Your task to perform on an android device: Search for macbook pro 15 inch on costco.com, select the first entry, add it to the cart, then select checkout. Image 0: 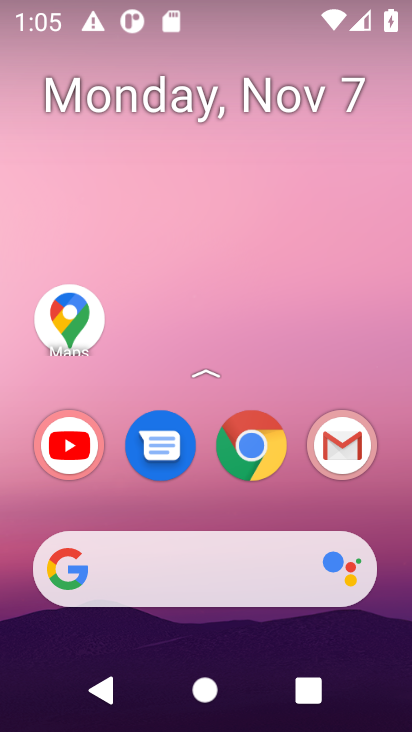
Step 0: click (260, 439)
Your task to perform on an android device: Search for macbook pro 15 inch on costco.com, select the first entry, add it to the cart, then select checkout. Image 1: 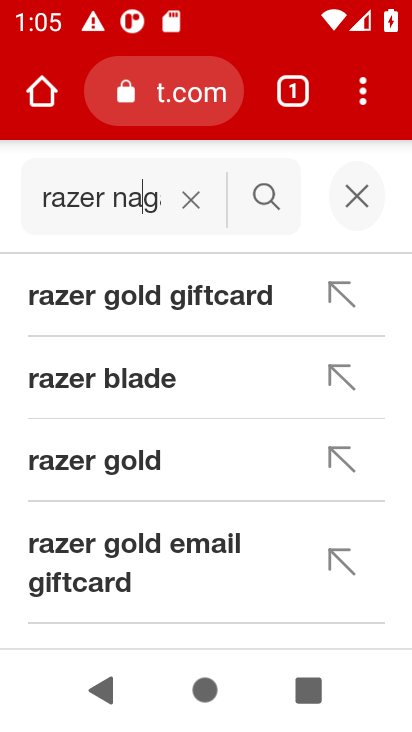
Step 1: click (205, 101)
Your task to perform on an android device: Search for macbook pro 15 inch on costco.com, select the first entry, add it to the cart, then select checkout. Image 2: 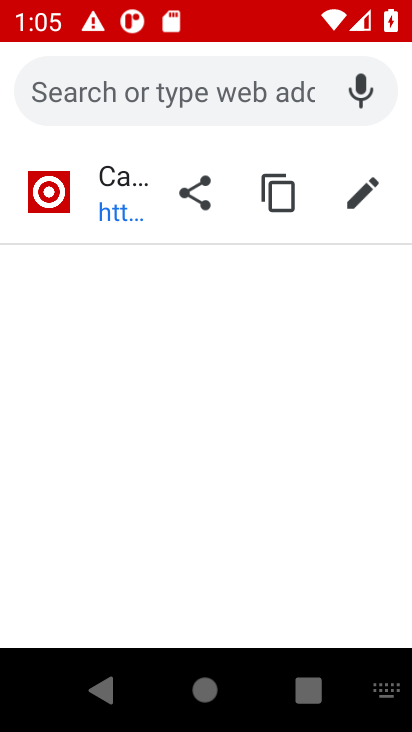
Step 2: type "costco.com"
Your task to perform on an android device: Search for macbook pro 15 inch on costco.com, select the first entry, add it to the cart, then select checkout. Image 3: 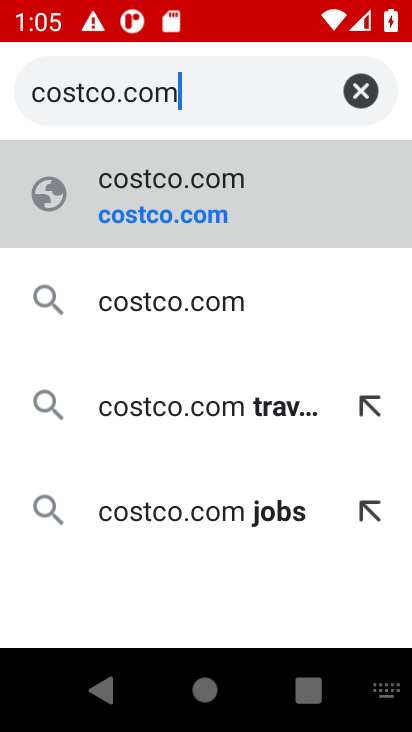
Step 3: click (206, 208)
Your task to perform on an android device: Search for macbook pro 15 inch on costco.com, select the first entry, add it to the cart, then select checkout. Image 4: 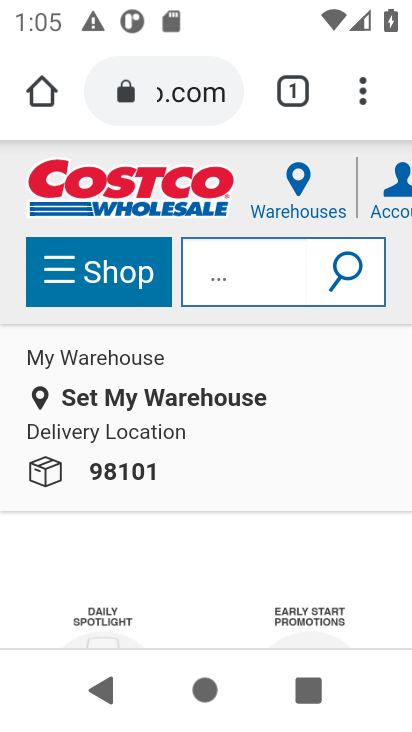
Step 4: click (251, 256)
Your task to perform on an android device: Search for macbook pro 15 inch on costco.com, select the first entry, add it to the cart, then select checkout. Image 5: 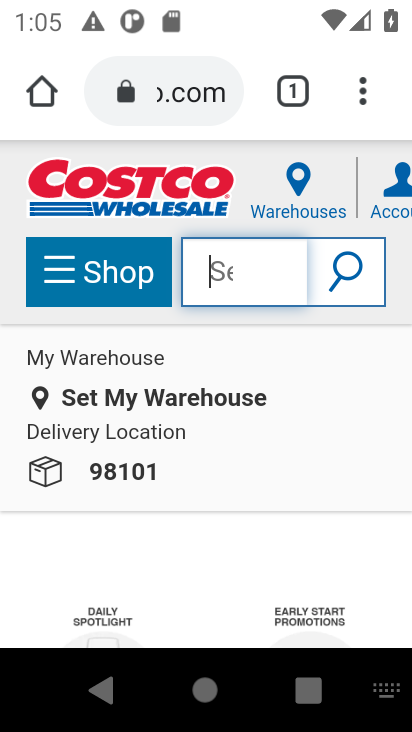
Step 5: type " macbook pro 15 inch"
Your task to perform on an android device: Search for macbook pro 15 inch on costco.com, select the first entry, add it to the cart, then select checkout. Image 6: 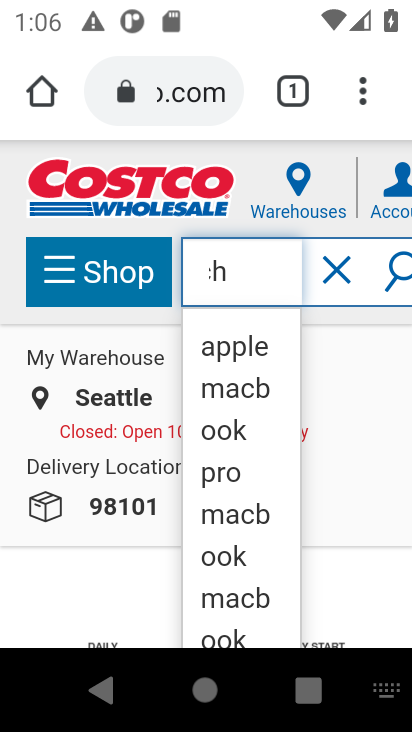
Step 6: click (365, 333)
Your task to perform on an android device: Search for macbook pro 15 inch on costco.com, select the first entry, add it to the cart, then select checkout. Image 7: 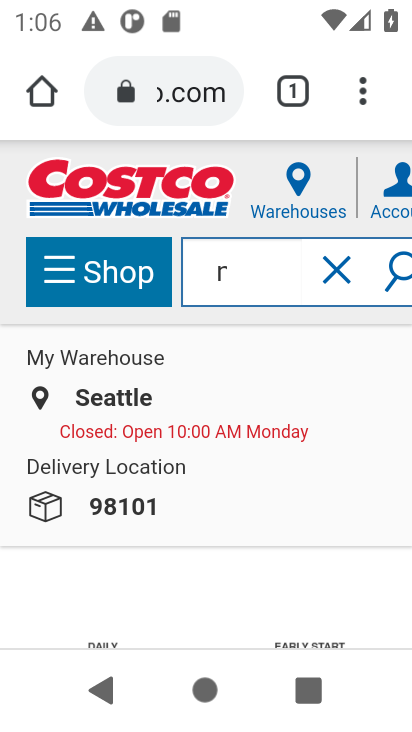
Step 7: click (330, 271)
Your task to perform on an android device: Search for macbook pro 15 inch on costco.com, select the first entry, add it to the cart, then select checkout. Image 8: 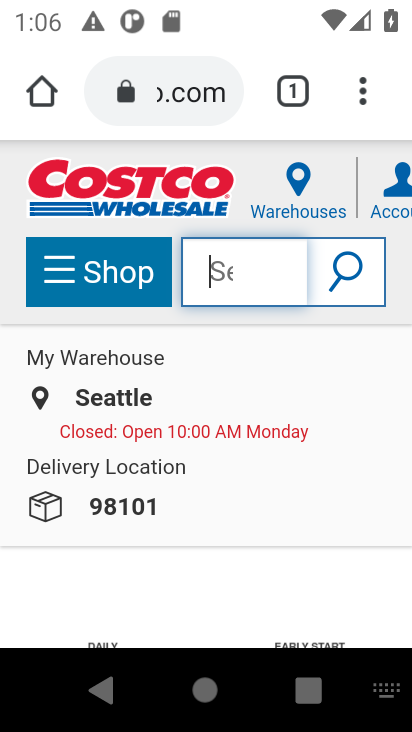
Step 8: click (261, 268)
Your task to perform on an android device: Search for macbook pro 15 inch on costco.com, select the first entry, add it to the cart, then select checkout. Image 9: 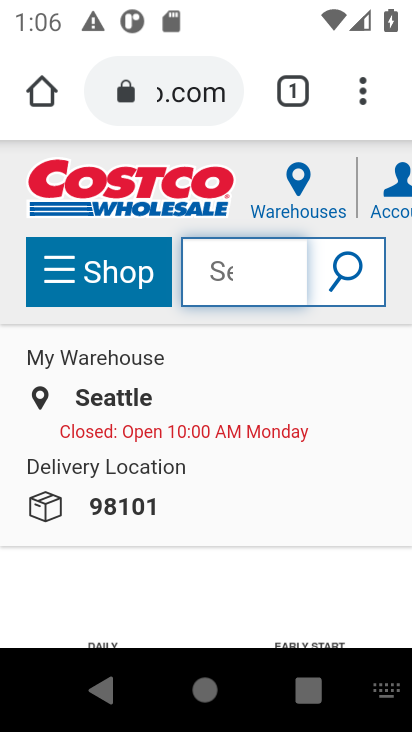
Step 9: type " macbook pro 15 inch"
Your task to perform on an android device: Search for macbook pro 15 inch on costco.com, select the first entry, add it to the cart, then select checkout. Image 10: 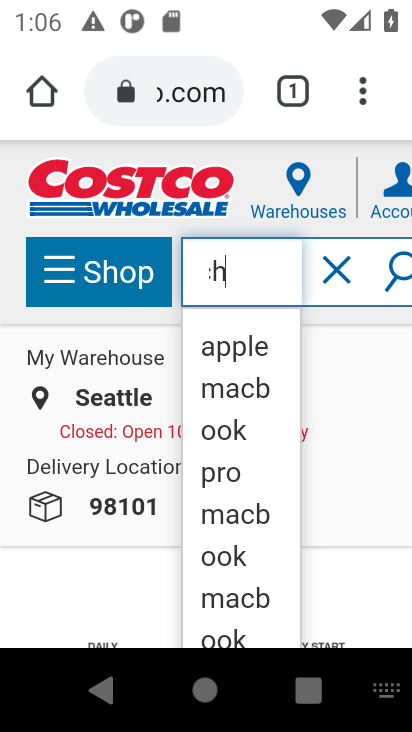
Step 10: click (375, 329)
Your task to perform on an android device: Search for macbook pro 15 inch on costco.com, select the first entry, add it to the cart, then select checkout. Image 11: 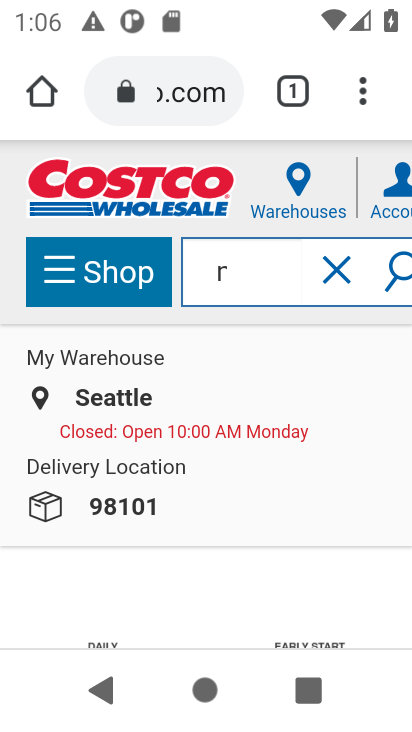
Step 11: task complete